Your task to perform on an android device: change text size in settings app Image 0: 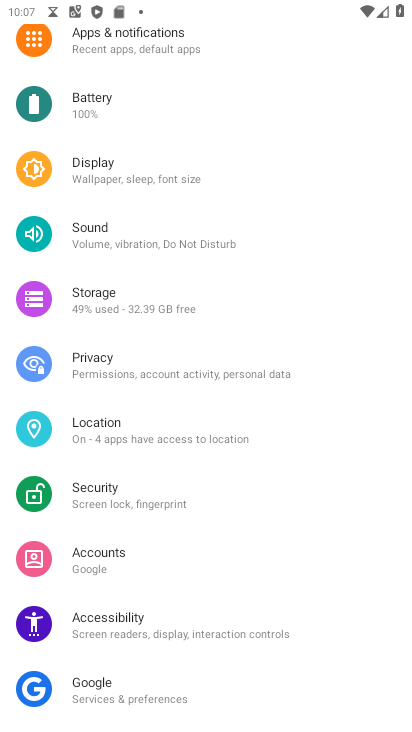
Step 0: press home button
Your task to perform on an android device: change text size in settings app Image 1: 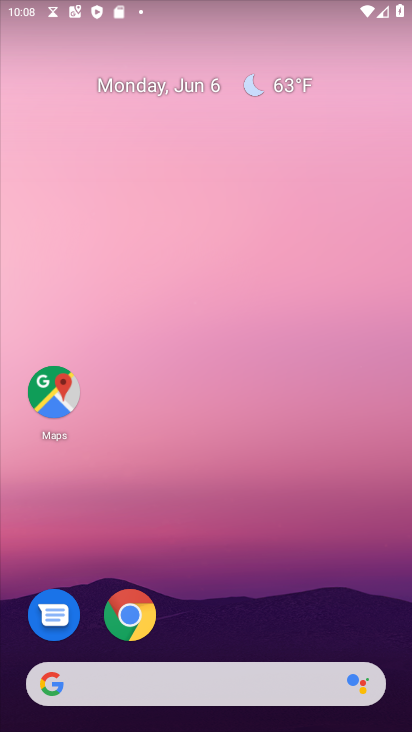
Step 1: drag from (234, 648) to (231, 11)
Your task to perform on an android device: change text size in settings app Image 2: 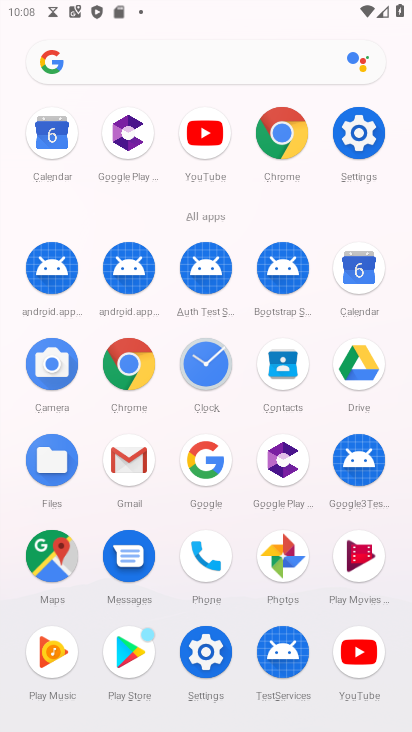
Step 2: click (205, 643)
Your task to perform on an android device: change text size in settings app Image 3: 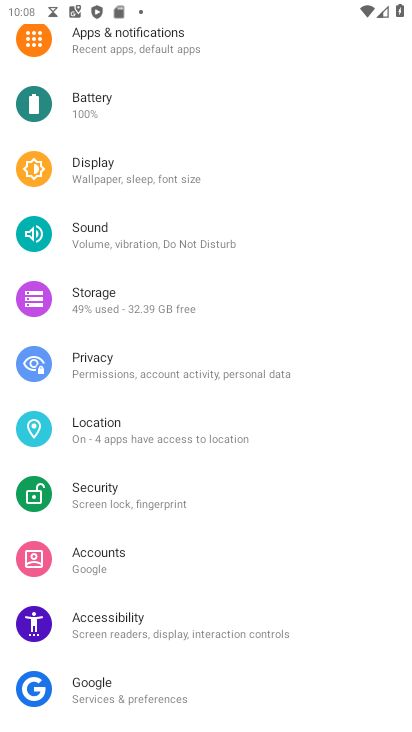
Step 3: click (121, 163)
Your task to perform on an android device: change text size in settings app Image 4: 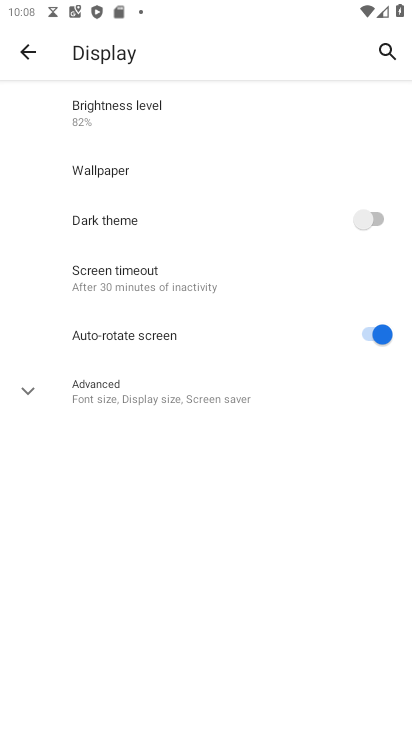
Step 4: click (89, 392)
Your task to perform on an android device: change text size in settings app Image 5: 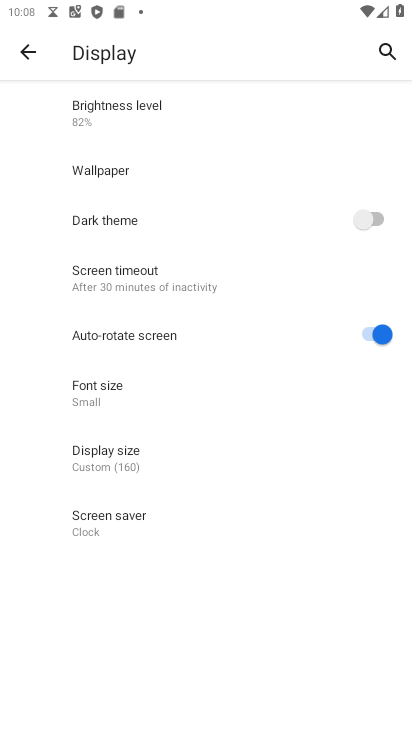
Step 5: click (135, 386)
Your task to perform on an android device: change text size in settings app Image 6: 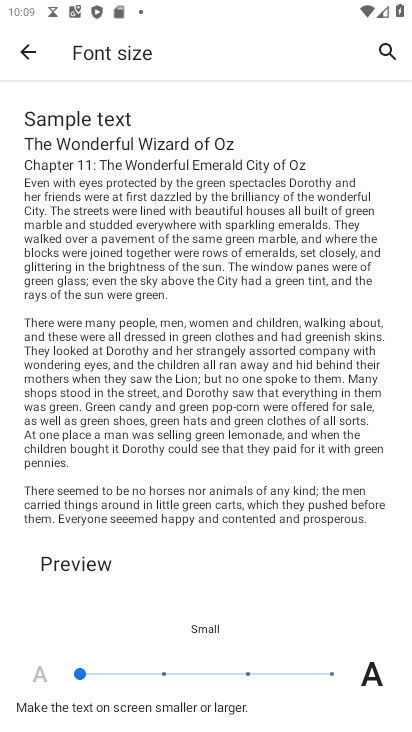
Step 6: drag from (247, 601) to (273, 372)
Your task to perform on an android device: change text size in settings app Image 7: 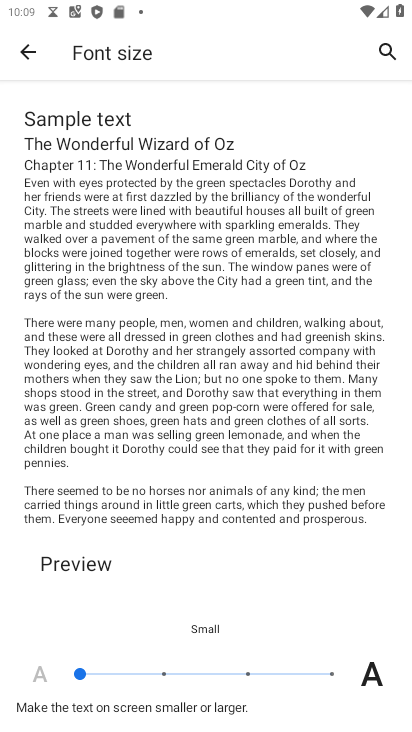
Step 7: click (164, 673)
Your task to perform on an android device: change text size in settings app Image 8: 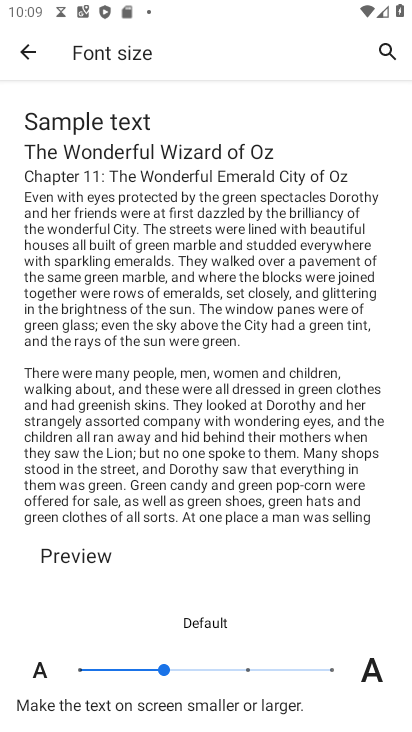
Step 8: task complete